Your task to perform on an android device: turn on wifi Image 0: 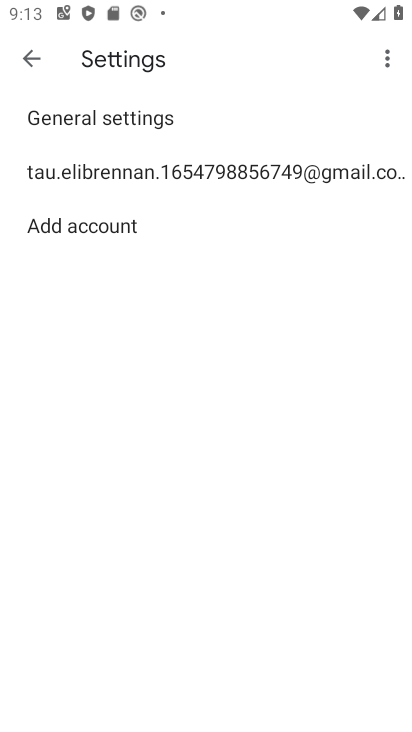
Step 0: press home button
Your task to perform on an android device: turn on wifi Image 1: 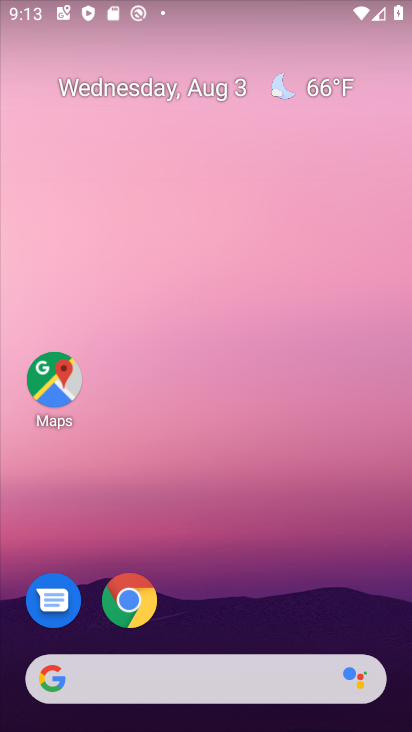
Step 1: drag from (233, 632) to (172, 10)
Your task to perform on an android device: turn on wifi Image 2: 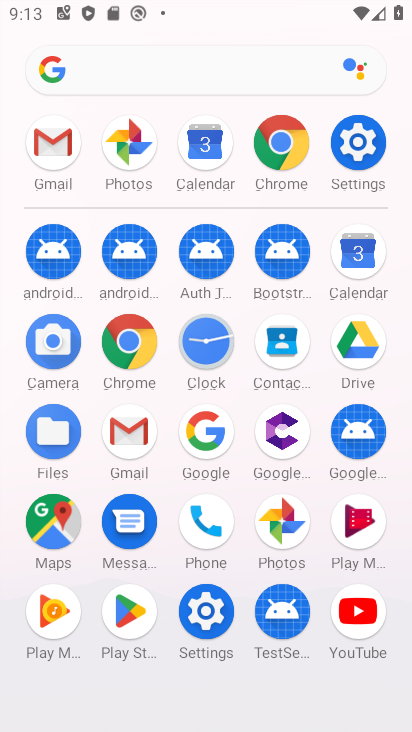
Step 2: click (354, 156)
Your task to perform on an android device: turn on wifi Image 3: 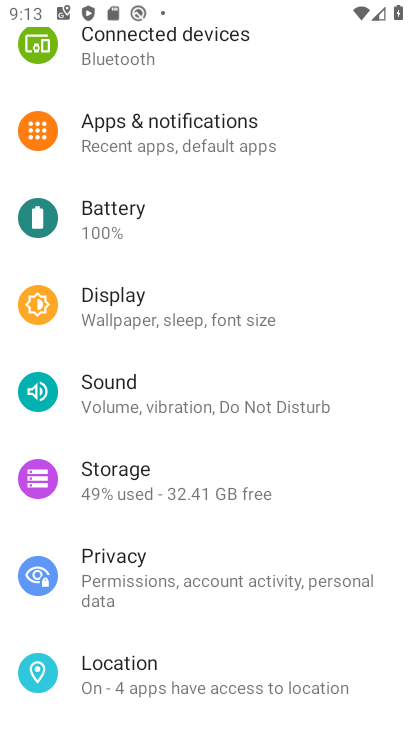
Step 3: drag from (202, 121) to (201, 715)
Your task to perform on an android device: turn on wifi Image 4: 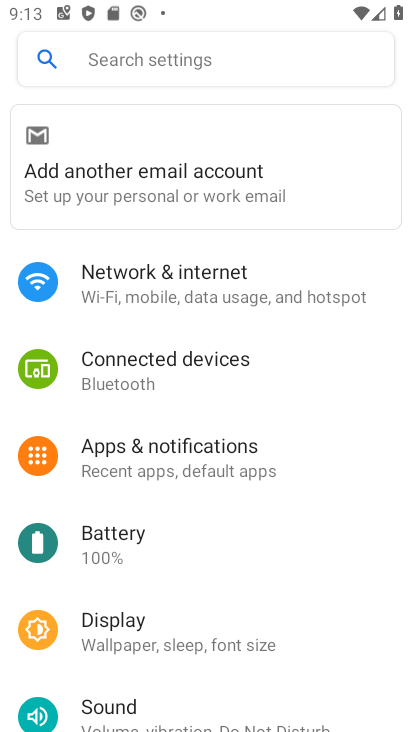
Step 4: click (179, 296)
Your task to perform on an android device: turn on wifi Image 5: 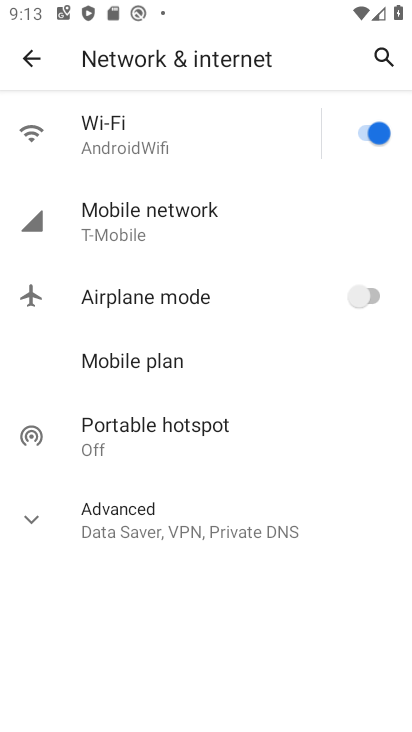
Step 5: task complete